Your task to perform on an android device: See recent photos Image 0: 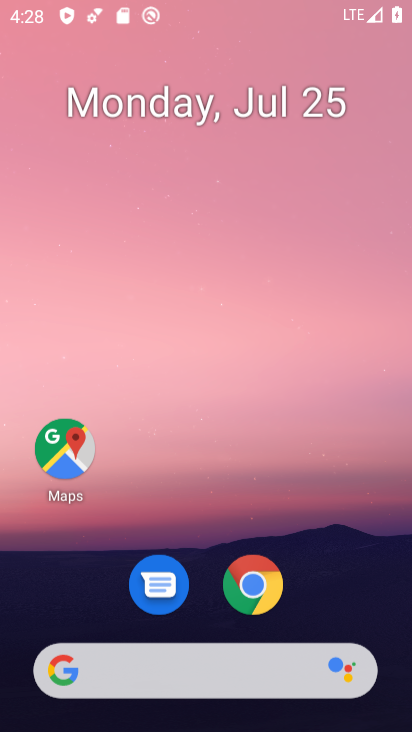
Step 0: drag from (320, 391) to (335, 113)
Your task to perform on an android device: See recent photos Image 1: 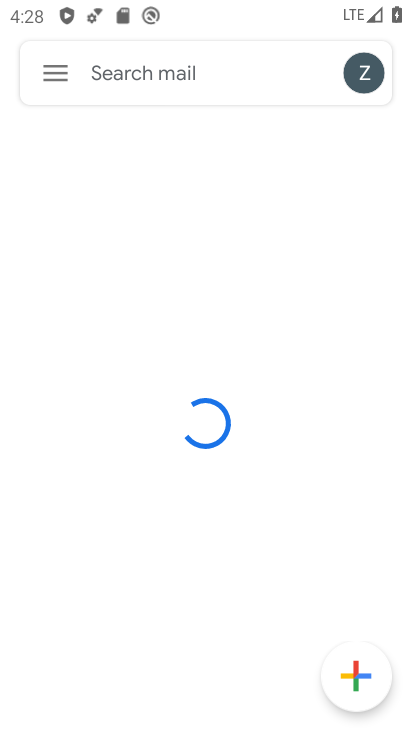
Step 1: press home button
Your task to perform on an android device: See recent photos Image 2: 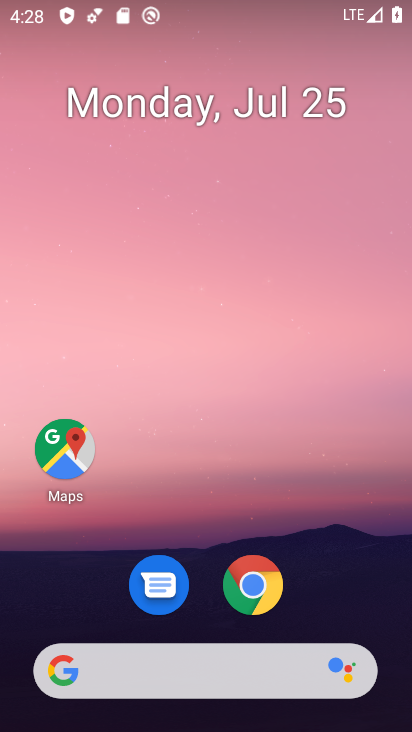
Step 2: drag from (331, 581) to (337, 15)
Your task to perform on an android device: See recent photos Image 3: 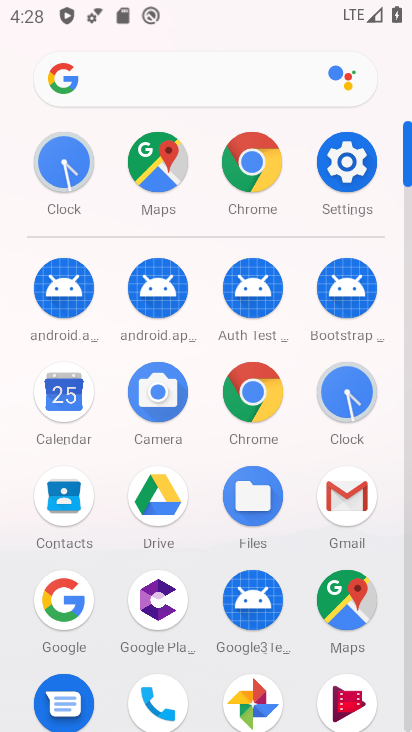
Step 3: drag from (227, 580) to (214, 336)
Your task to perform on an android device: See recent photos Image 4: 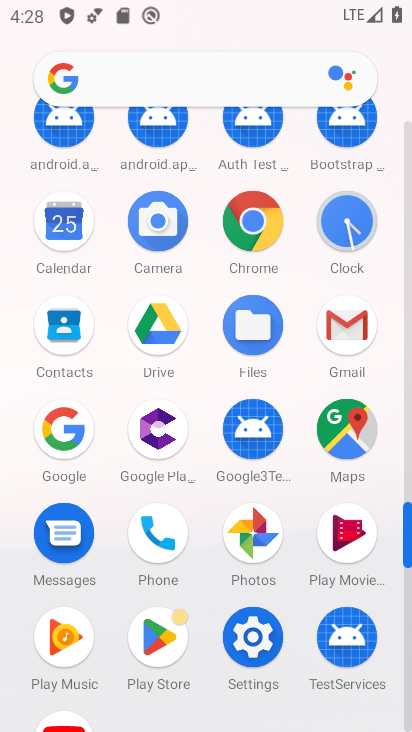
Step 4: click (250, 534)
Your task to perform on an android device: See recent photos Image 5: 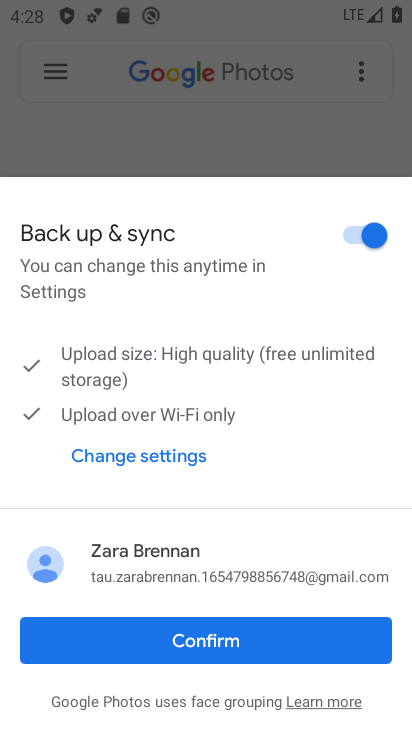
Step 5: click (253, 642)
Your task to perform on an android device: See recent photos Image 6: 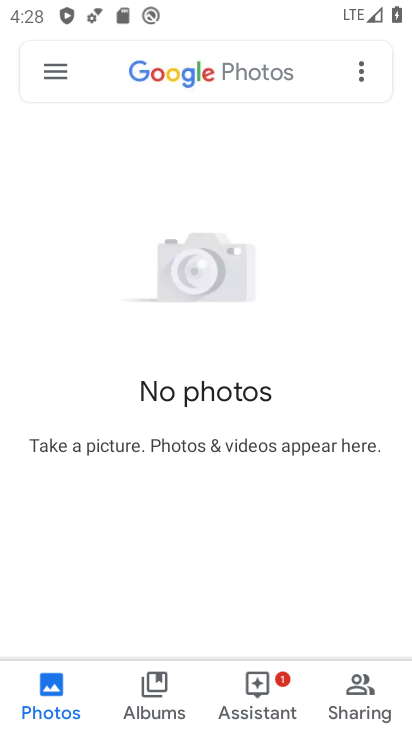
Step 6: click (50, 686)
Your task to perform on an android device: See recent photos Image 7: 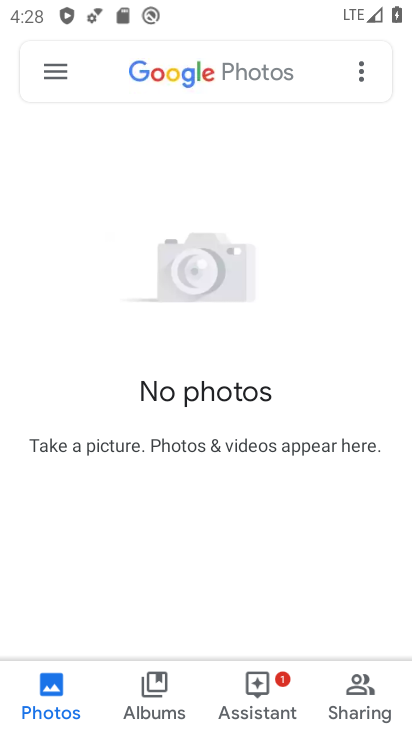
Step 7: task complete